Your task to perform on an android device: turn pop-ups on in chrome Image 0: 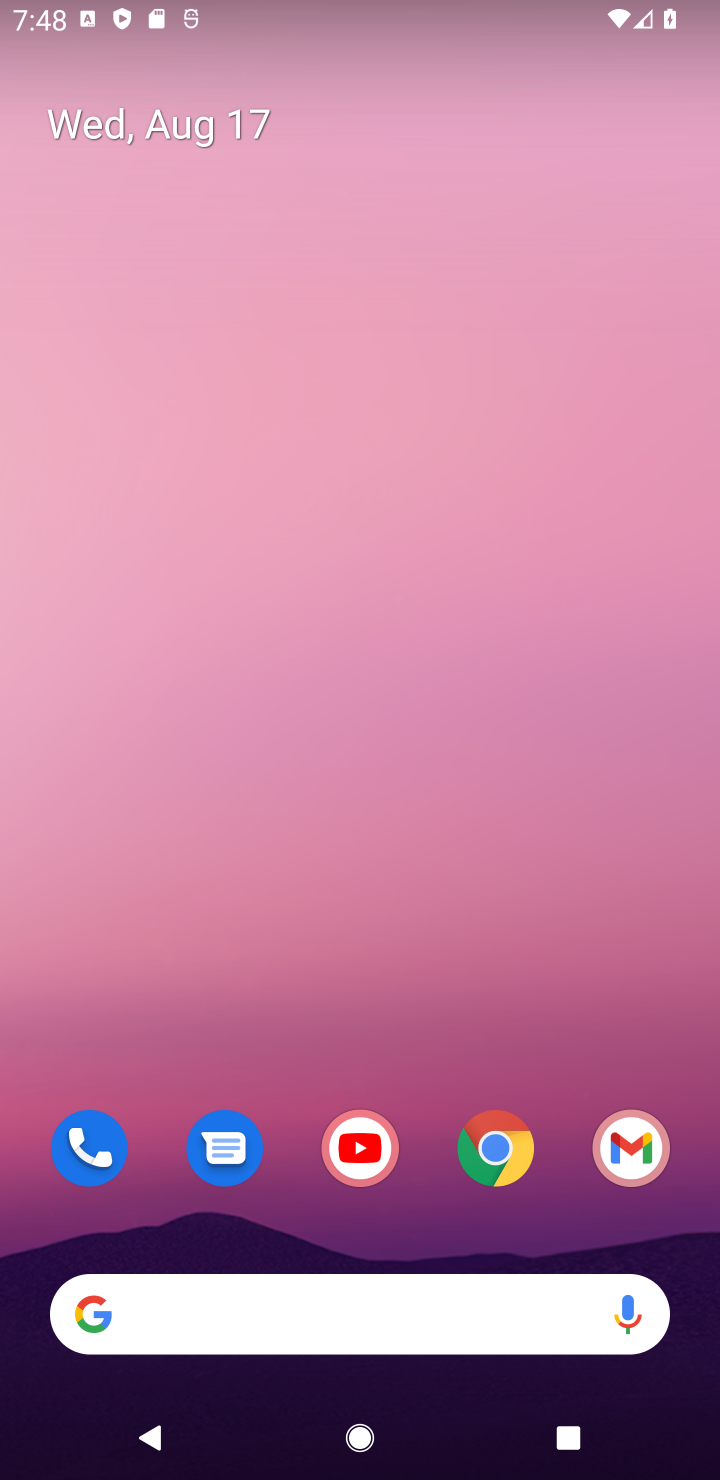
Step 0: click (501, 1146)
Your task to perform on an android device: turn pop-ups on in chrome Image 1: 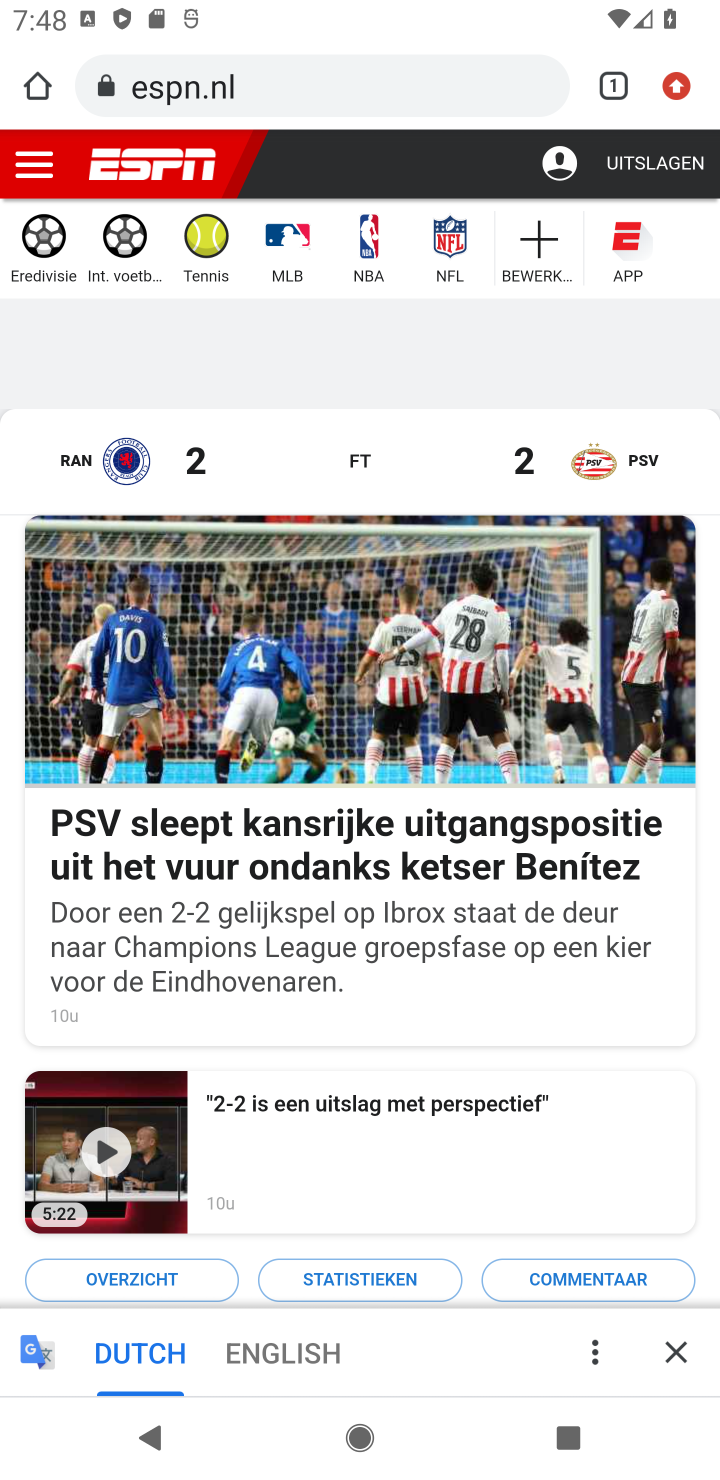
Step 1: click (676, 92)
Your task to perform on an android device: turn pop-ups on in chrome Image 2: 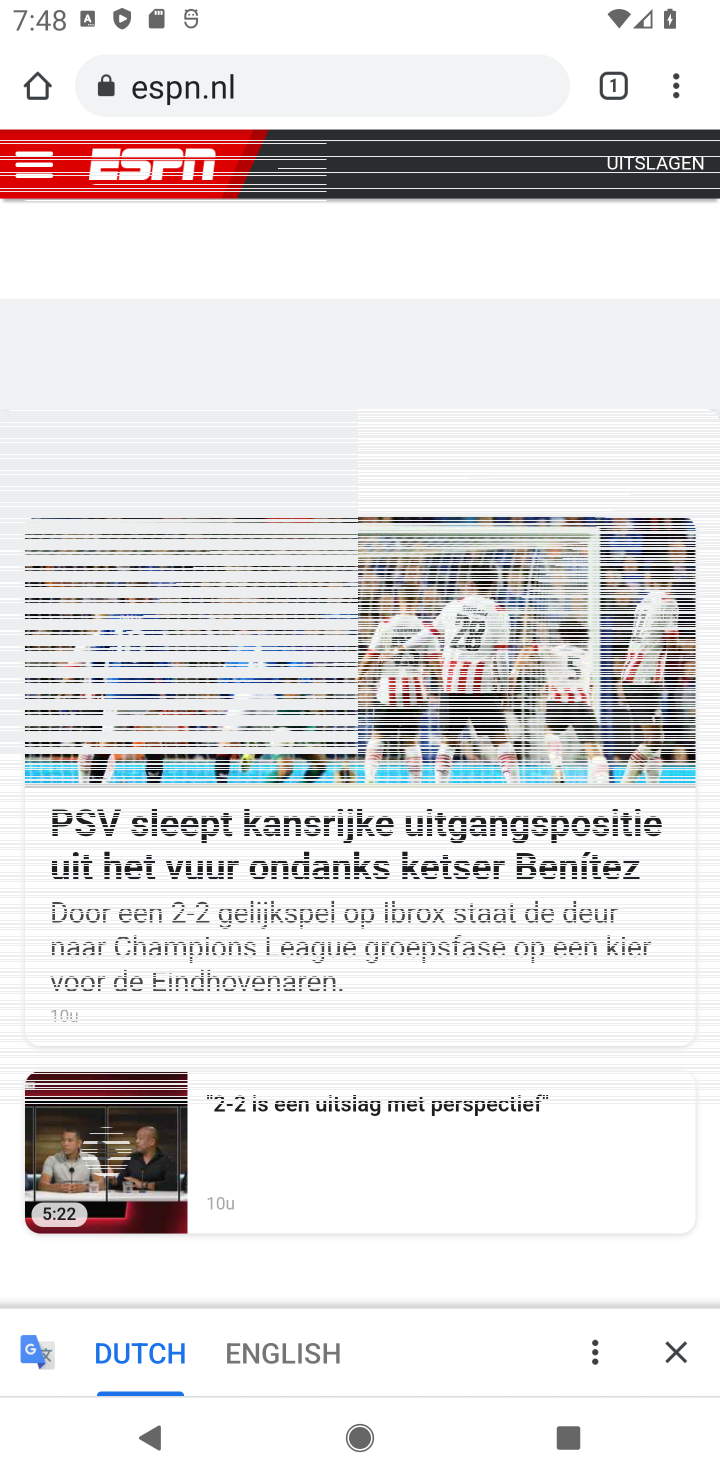
Step 2: click (668, 98)
Your task to perform on an android device: turn pop-ups on in chrome Image 3: 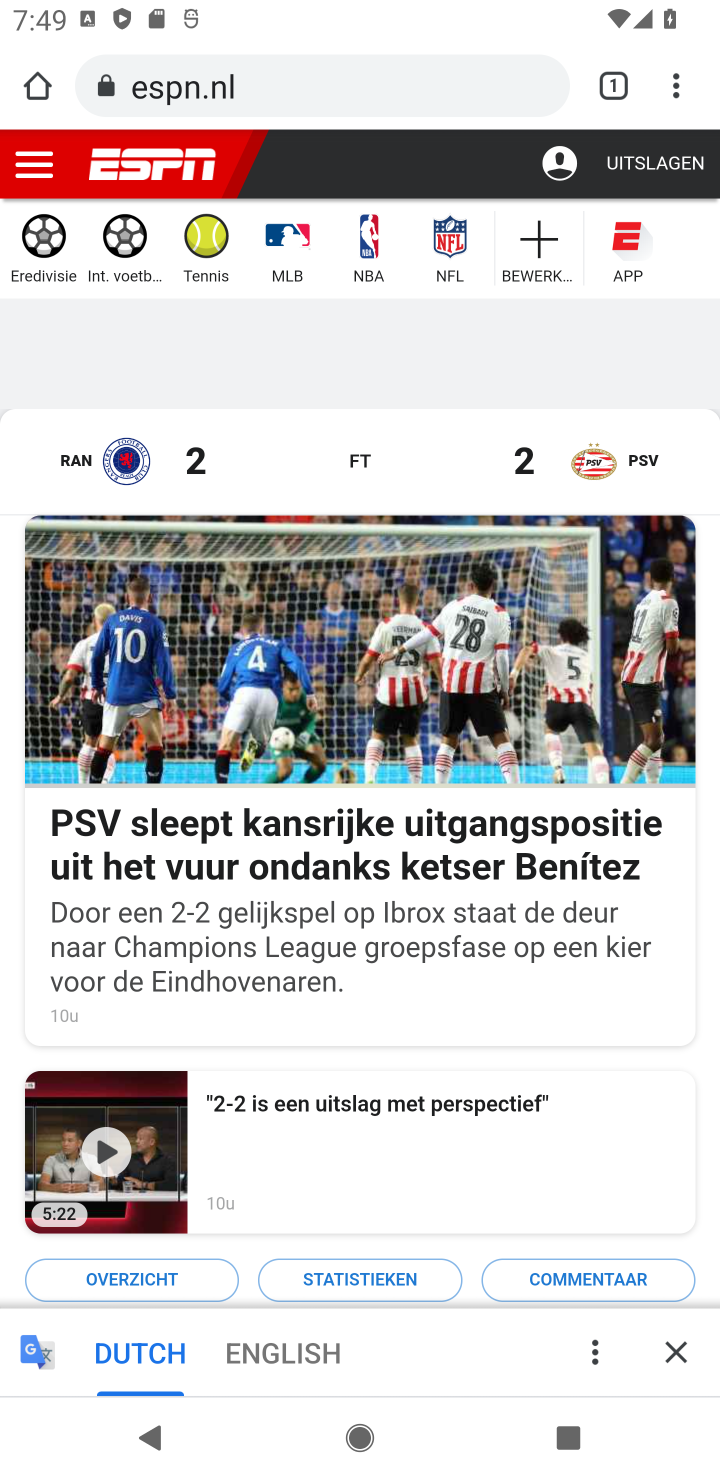
Step 3: click (668, 98)
Your task to perform on an android device: turn pop-ups on in chrome Image 4: 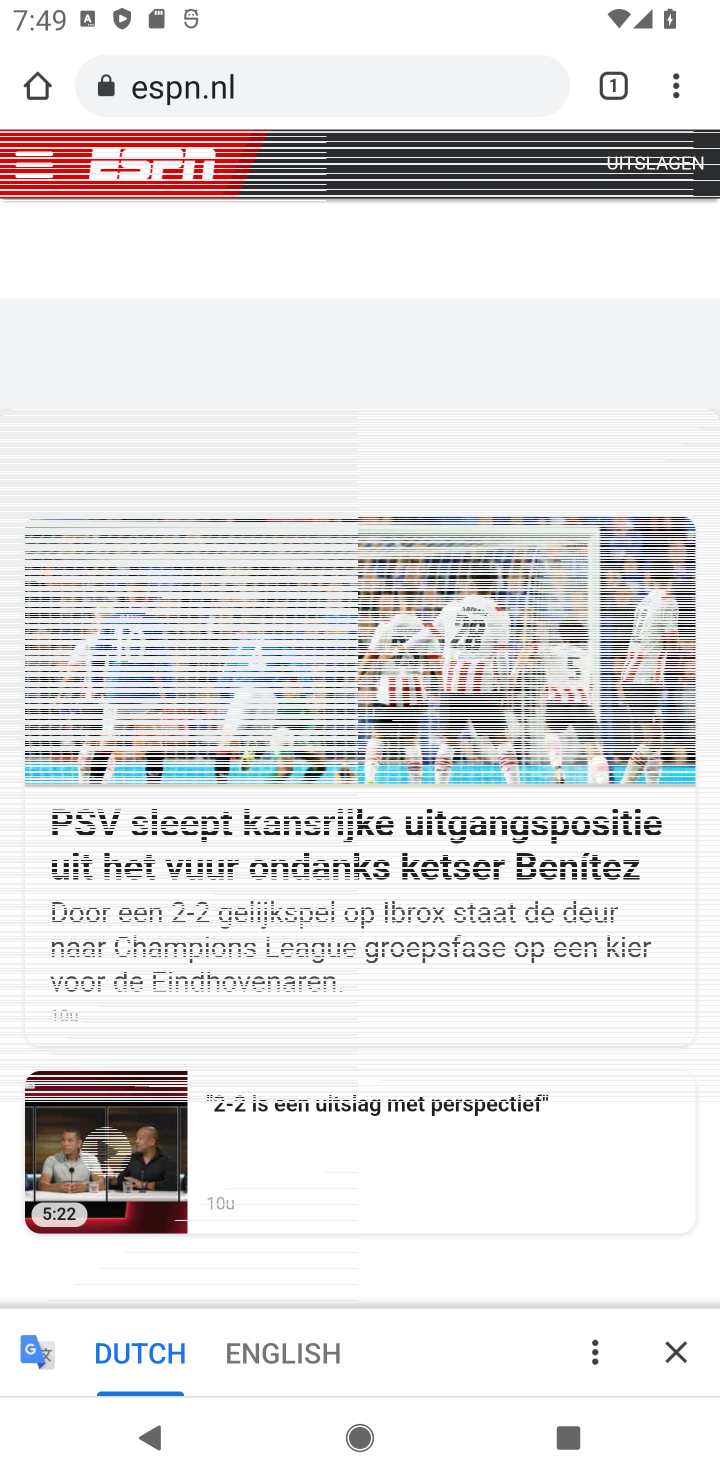
Step 4: click (668, 98)
Your task to perform on an android device: turn pop-ups on in chrome Image 5: 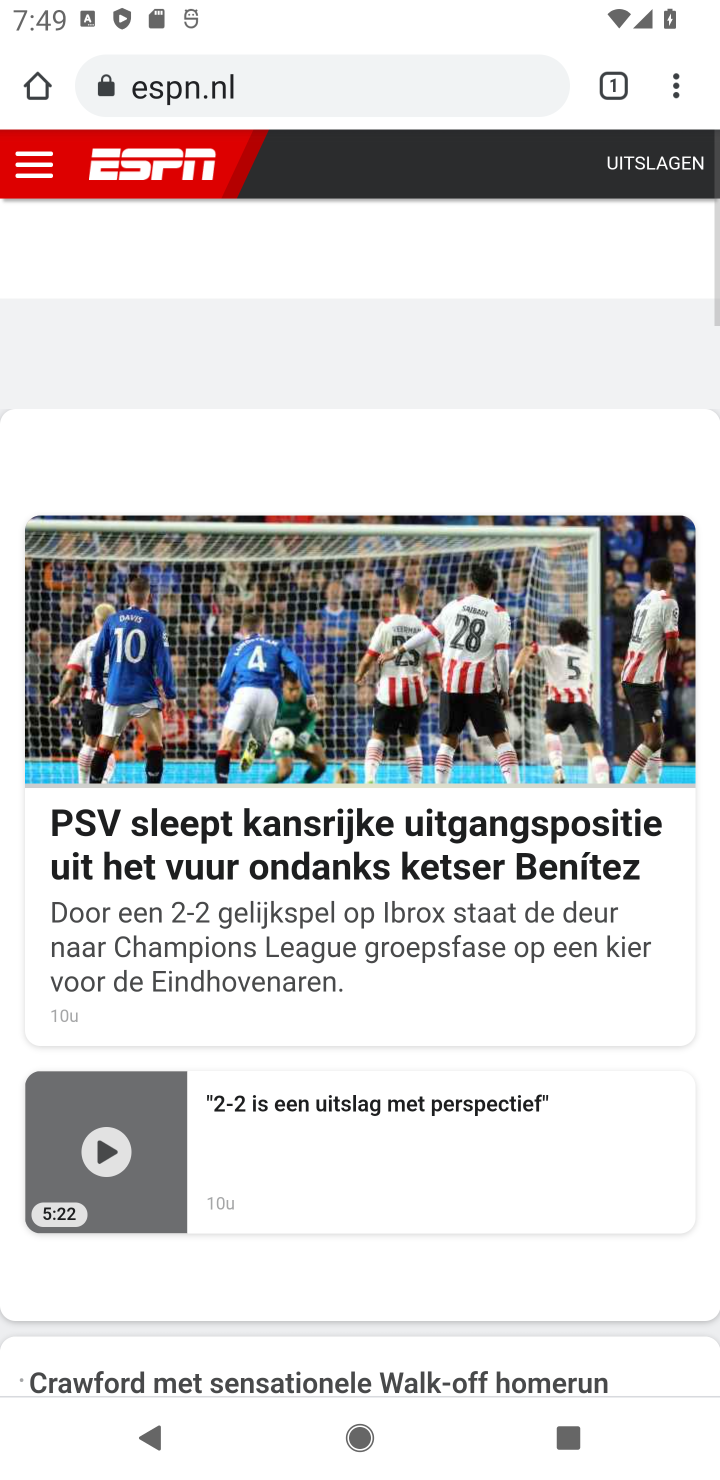
Step 5: task complete